Your task to perform on an android device: Go to internet settings Image 0: 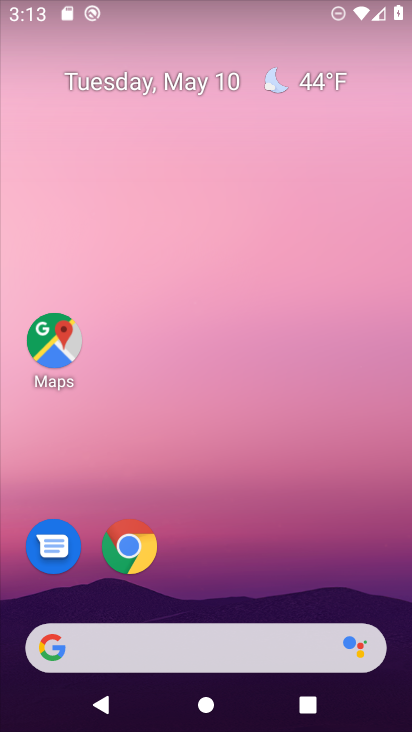
Step 0: drag from (263, 503) to (284, 38)
Your task to perform on an android device: Go to internet settings Image 1: 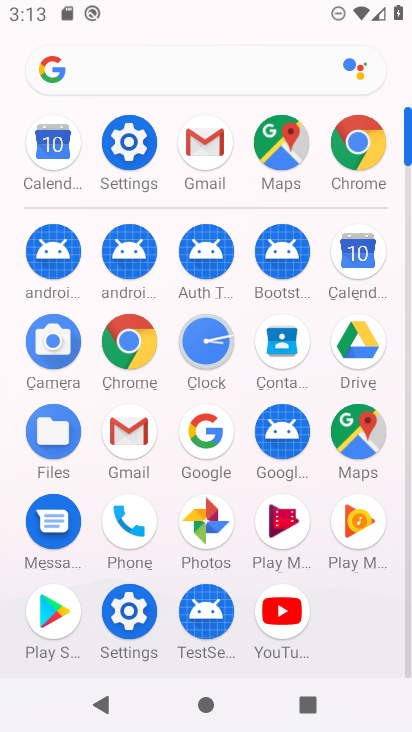
Step 1: click (129, 160)
Your task to perform on an android device: Go to internet settings Image 2: 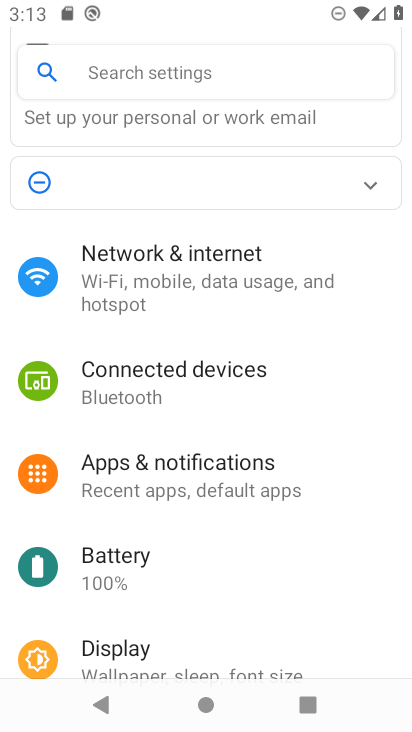
Step 2: click (270, 267)
Your task to perform on an android device: Go to internet settings Image 3: 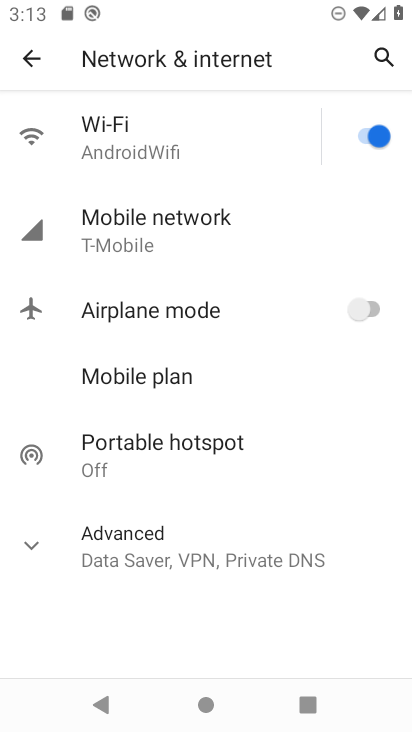
Step 3: click (34, 548)
Your task to perform on an android device: Go to internet settings Image 4: 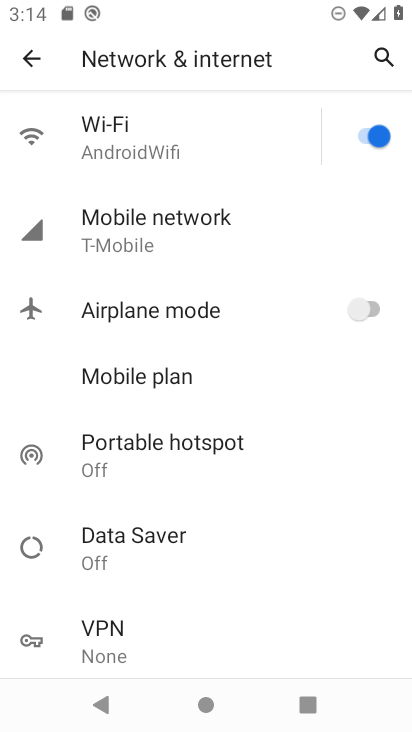
Step 4: task complete